Your task to perform on an android device: open app "Booking.com: Hotels and more" Image 0: 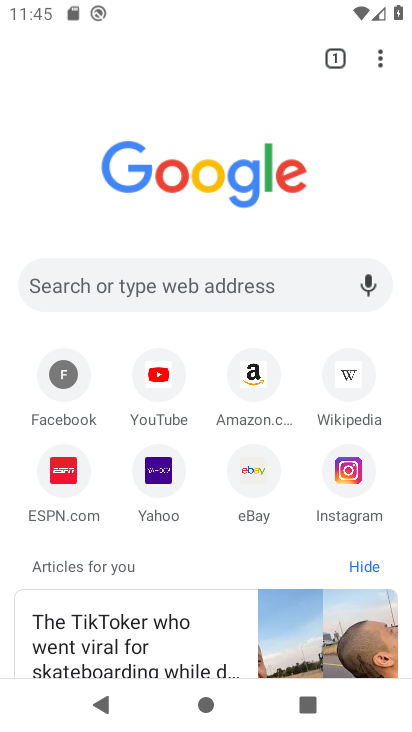
Step 0: press home button
Your task to perform on an android device: open app "Booking.com: Hotels and more" Image 1: 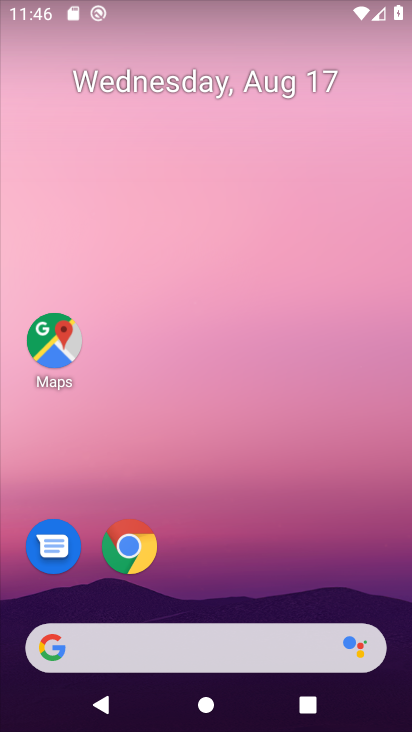
Step 1: drag from (196, 636) to (251, 10)
Your task to perform on an android device: open app "Booking.com: Hotels and more" Image 2: 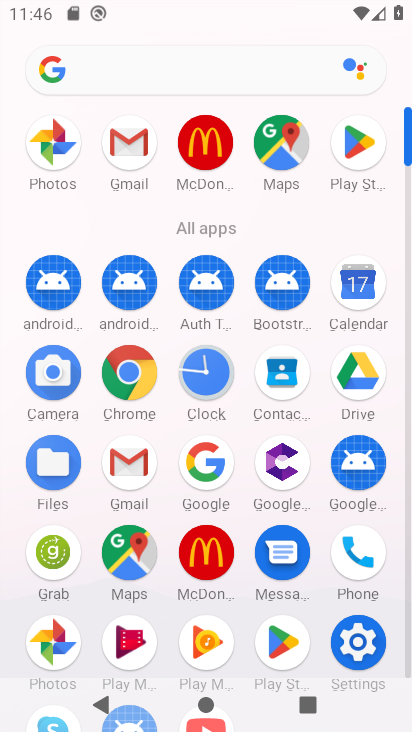
Step 2: click (279, 644)
Your task to perform on an android device: open app "Booking.com: Hotels and more" Image 3: 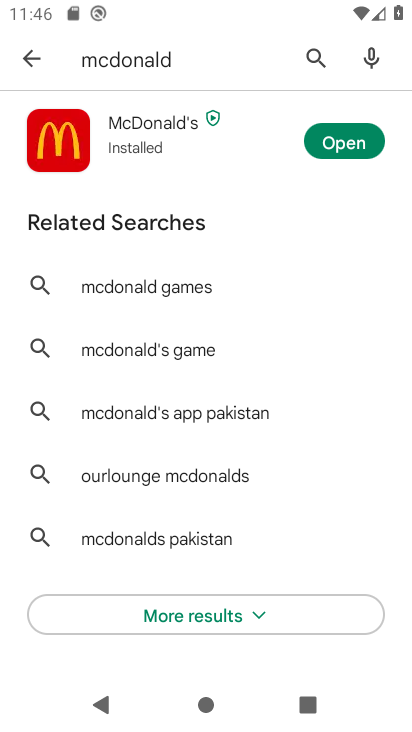
Step 3: click (313, 58)
Your task to perform on an android device: open app "Booking.com: Hotels and more" Image 4: 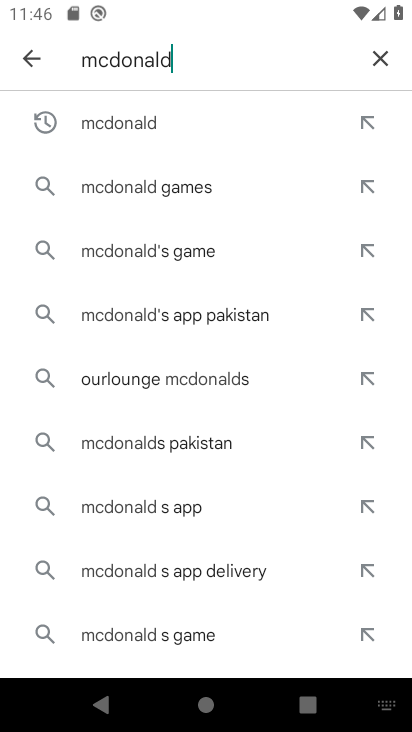
Step 4: click (383, 58)
Your task to perform on an android device: open app "Booking.com: Hotels and more" Image 5: 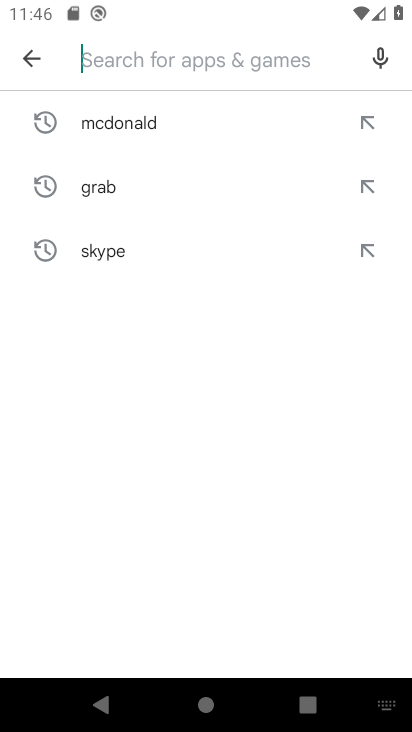
Step 5: type "Booking.com: Hotels and more"
Your task to perform on an android device: open app "Booking.com: Hotels and more" Image 6: 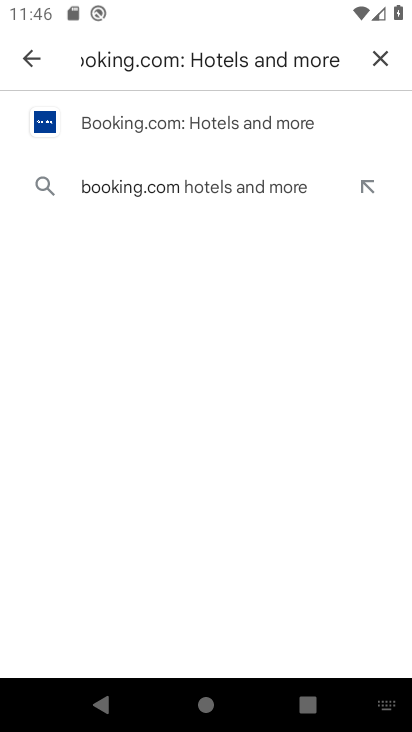
Step 6: click (250, 138)
Your task to perform on an android device: open app "Booking.com: Hotels and more" Image 7: 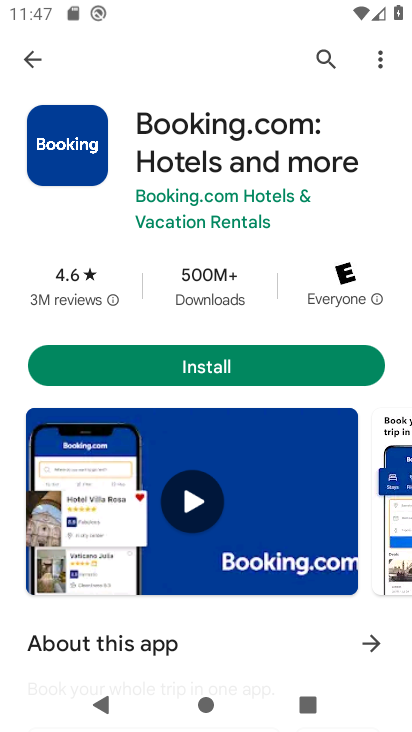
Step 7: task complete